Your task to perform on an android device: Open the stopwatch Image 0: 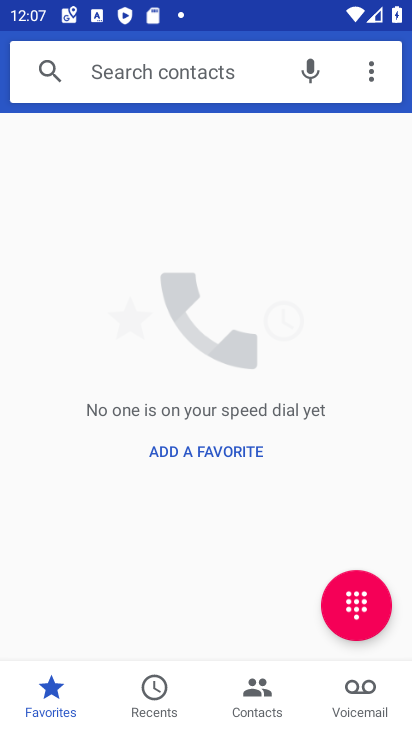
Step 0: press home button
Your task to perform on an android device: Open the stopwatch Image 1: 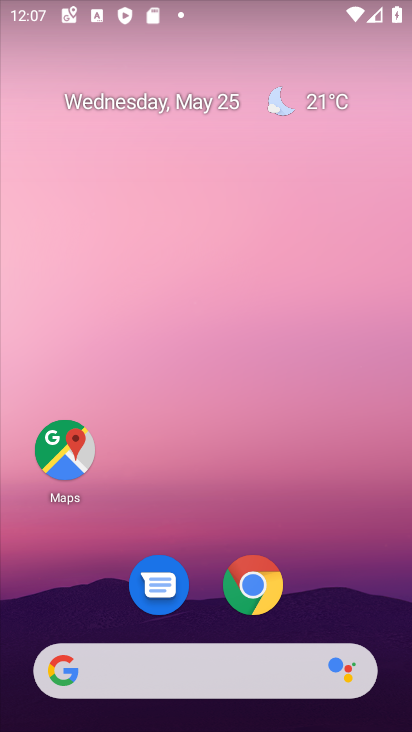
Step 1: drag from (232, 525) to (261, 58)
Your task to perform on an android device: Open the stopwatch Image 2: 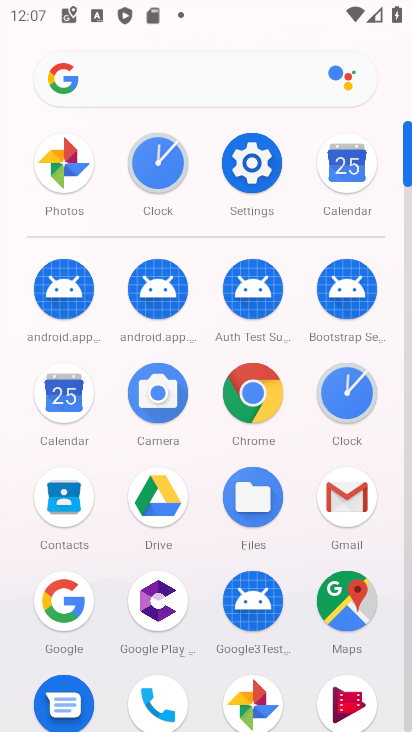
Step 2: click (165, 168)
Your task to perform on an android device: Open the stopwatch Image 3: 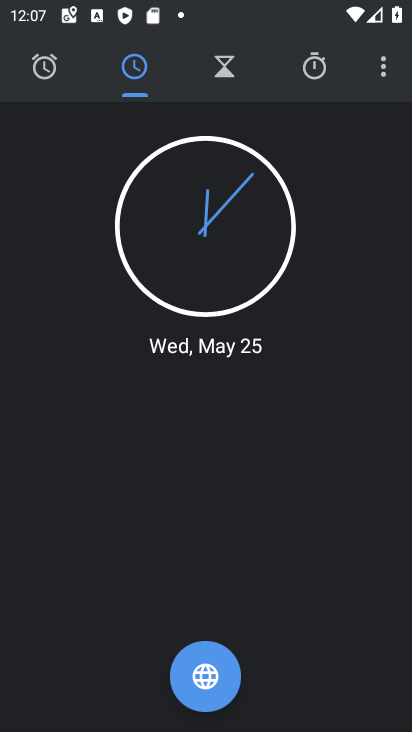
Step 3: click (311, 63)
Your task to perform on an android device: Open the stopwatch Image 4: 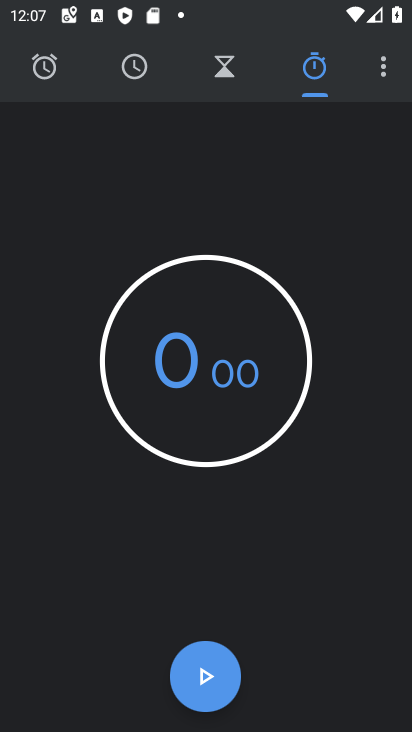
Step 4: task complete